Your task to perform on an android device: search for starred emails in the gmail app Image 0: 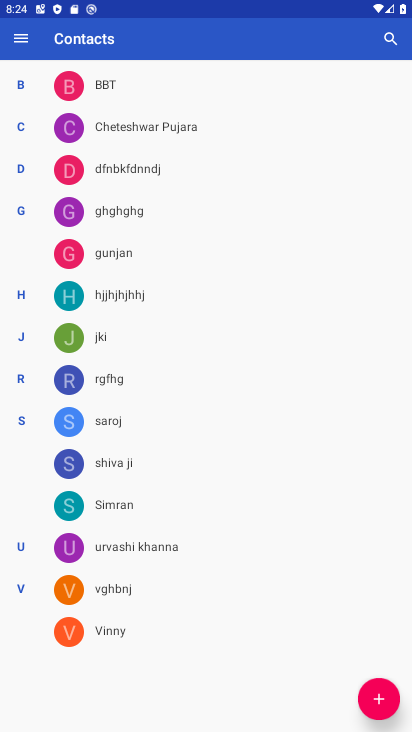
Step 0: press home button
Your task to perform on an android device: search for starred emails in the gmail app Image 1: 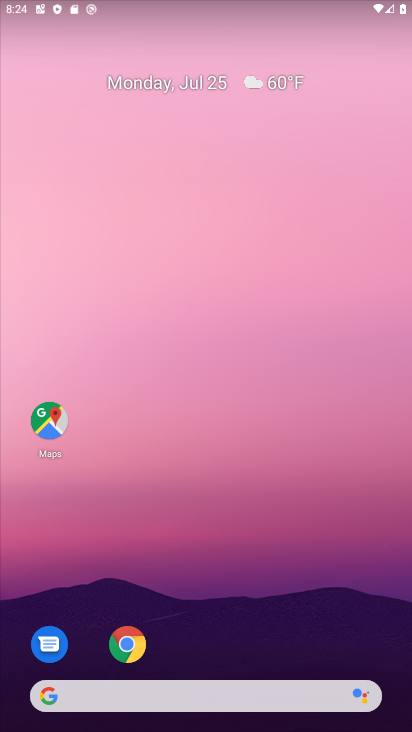
Step 1: drag from (266, 540) to (278, 261)
Your task to perform on an android device: search for starred emails in the gmail app Image 2: 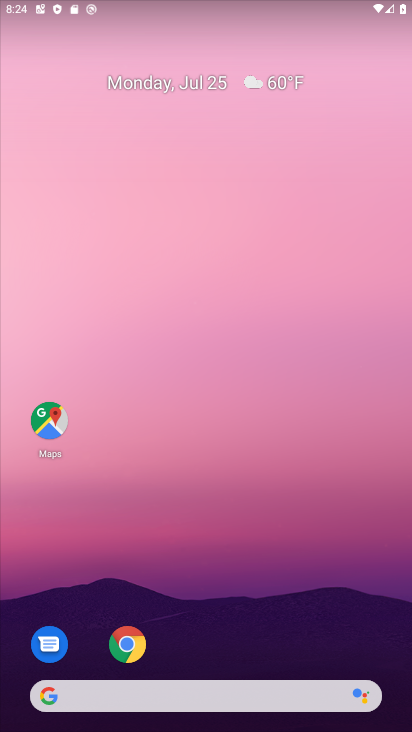
Step 2: drag from (307, 546) to (327, 75)
Your task to perform on an android device: search for starred emails in the gmail app Image 3: 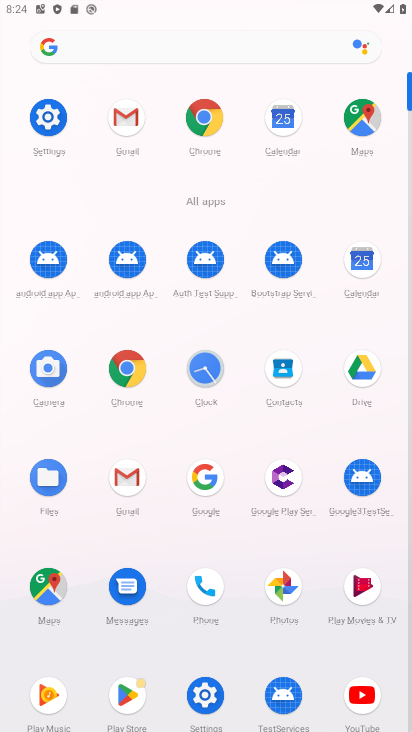
Step 3: click (119, 487)
Your task to perform on an android device: search for starred emails in the gmail app Image 4: 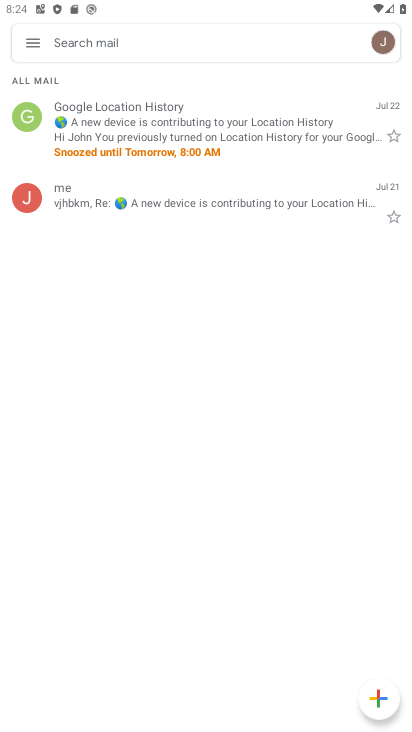
Step 4: click (36, 40)
Your task to perform on an android device: search for starred emails in the gmail app Image 5: 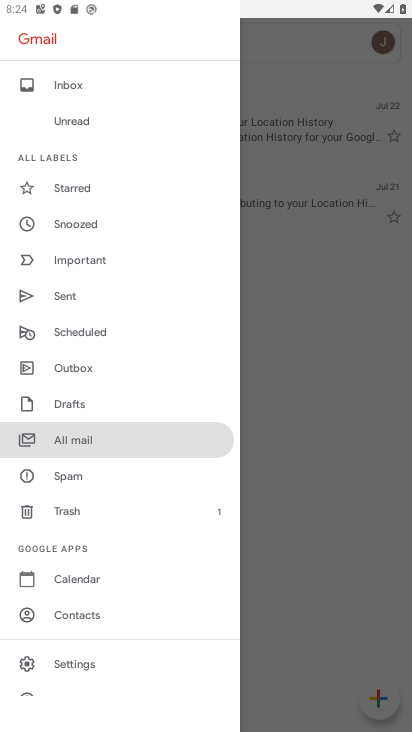
Step 5: click (82, 189)
Your task to perform on an android device: search for starred emails in the gmail app Image 6: 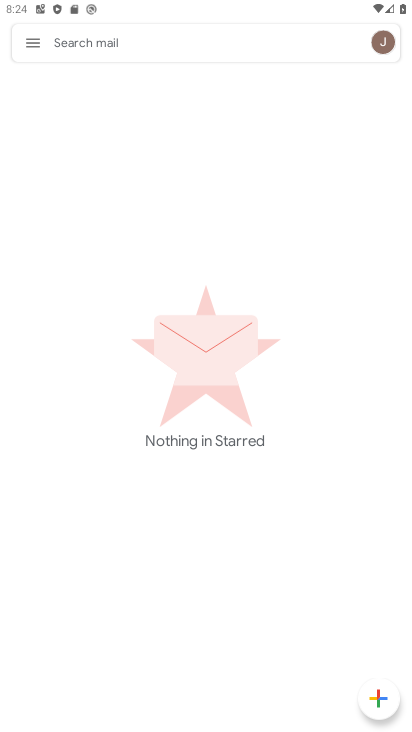
Step 6: task complete